Your task to perform on an android device: What's the weather? Image 0: 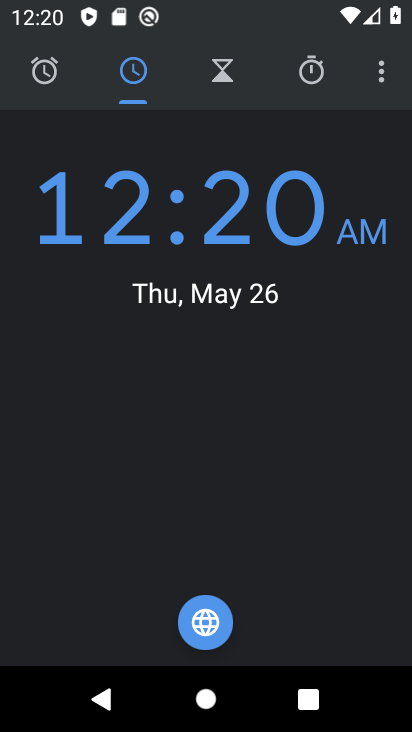
Step 0: press home button
Your task to perform on an android device: What's the weather? Image 1: 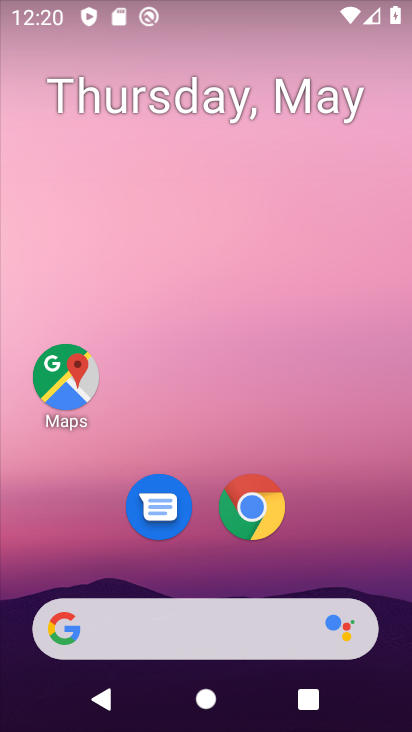
Step 1: drag from (3, 475) to (404, 411)
Your task to perform on an android device: What's the weather? Image 2: 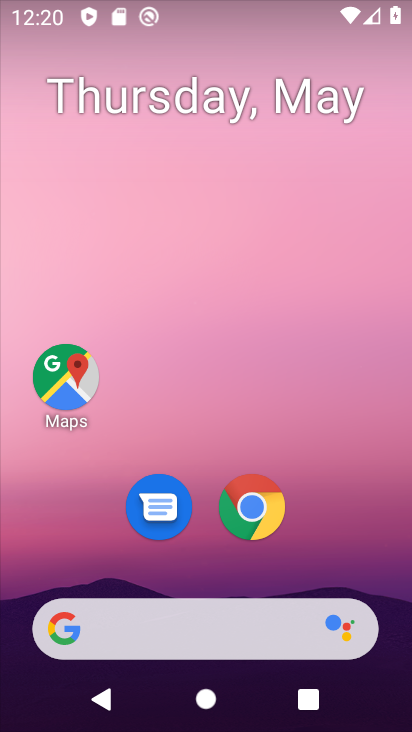
Step 2: drag from (5, 462) to (279, 381)
Your task to perform on an android device: What's the weather? Image 3: 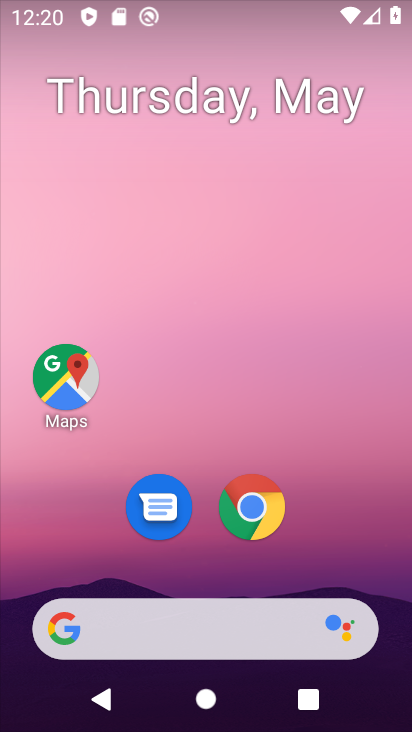
Step 3: drag from (7, 497) to (411, 431)
Your task to perform on an android device: What's the weather? Image 4: 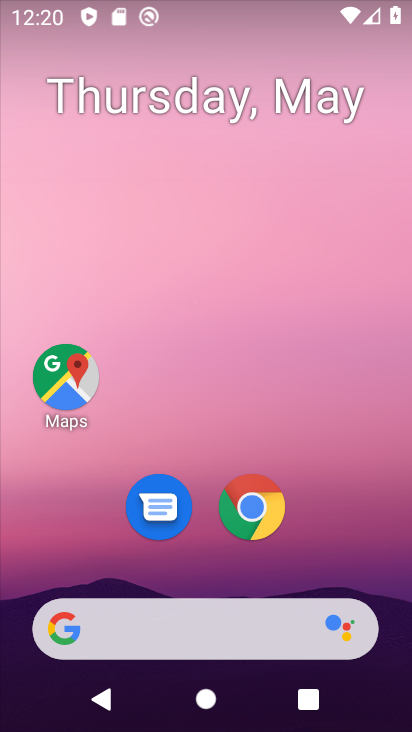
Step 4: drag from (0, 477) to (405, 334)
Your task to perform on an android device: What's the weather? Image 5: 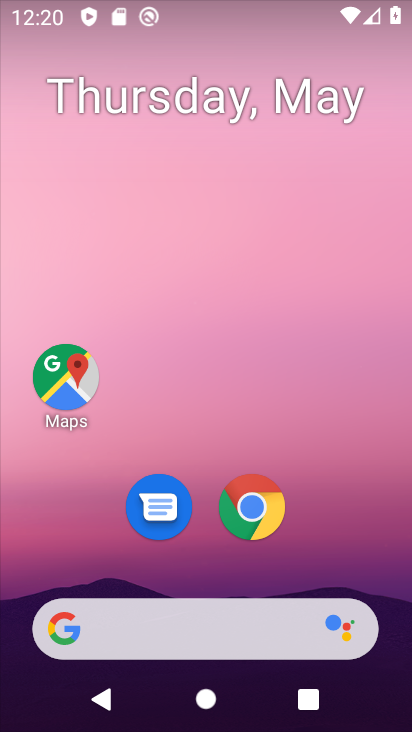
Step 5: drag from (2, 490) to (410, 396)
Your task to perform on an android device: What's the weather? Image 6: 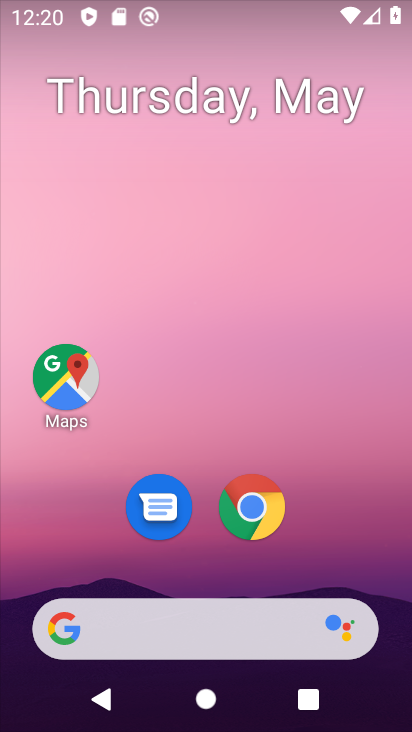
Step 6: drag from (35, 468) to (399, 268)
Your task to perform on an android device: What's the weather? Image 7: 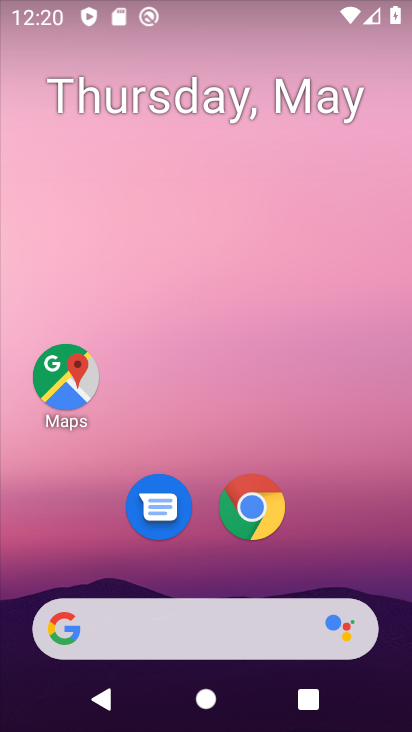
Step 7: drag from (9, 276) to (386, 330)
Your task to perform on an android device: What's the weather? Image 8: 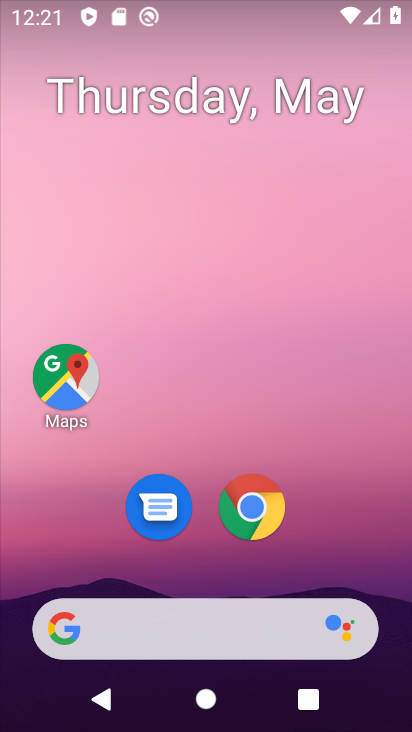
Step 8: drag from (3, 485) to (395, 388)
Your task to perform on an android device: What's the weather? Image 9: 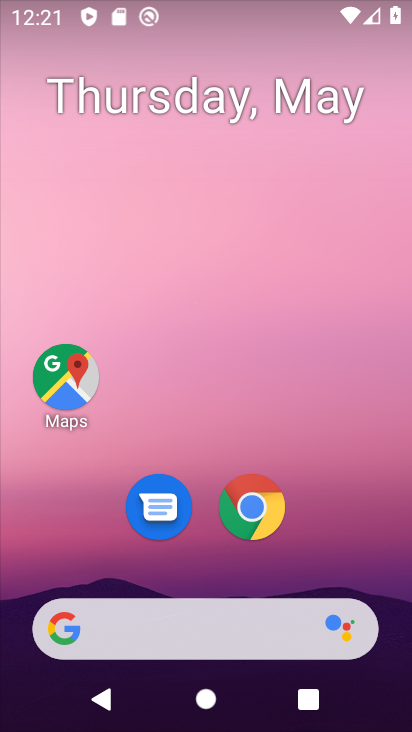
Step 9: drag from (35, 259) to (411, 277)
Your task to perform on an android device: What's the weather? Image 10: 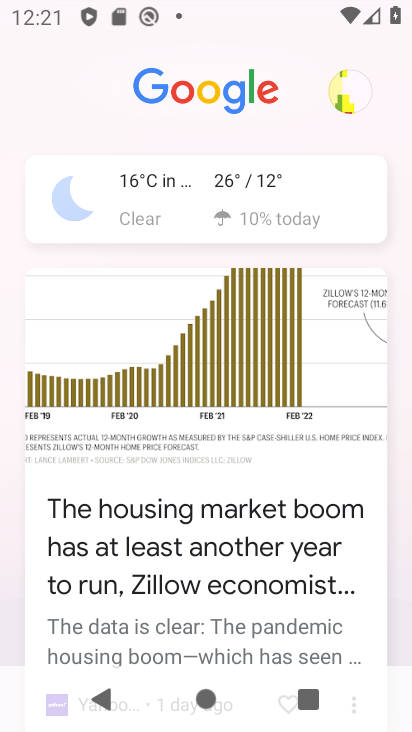
Step 10: click (279, 221)
Your task to perform on an android device: What's the weather? Image 11: 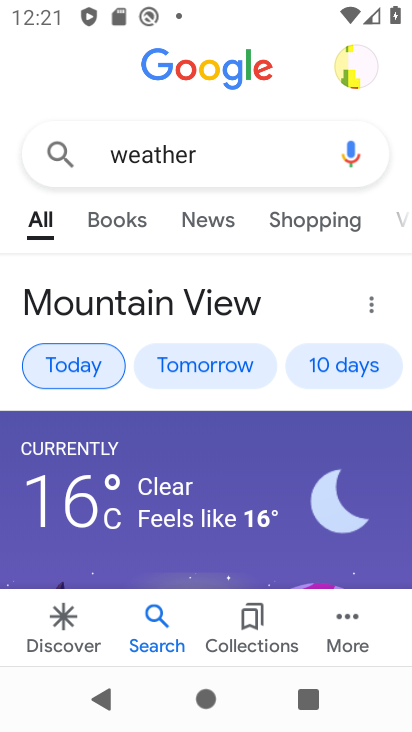
Step 11: task complete